Your task to perform on an android device: turn on notifications settings in the gmail app Image 0: 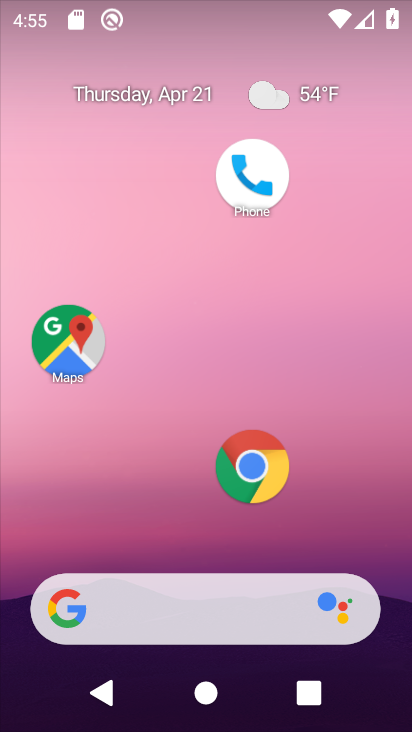
Step 0: drag from (188, 531) to (295, 32)
Your task to perform on an android device: turn on notifications settings in the gmail app Image 1: 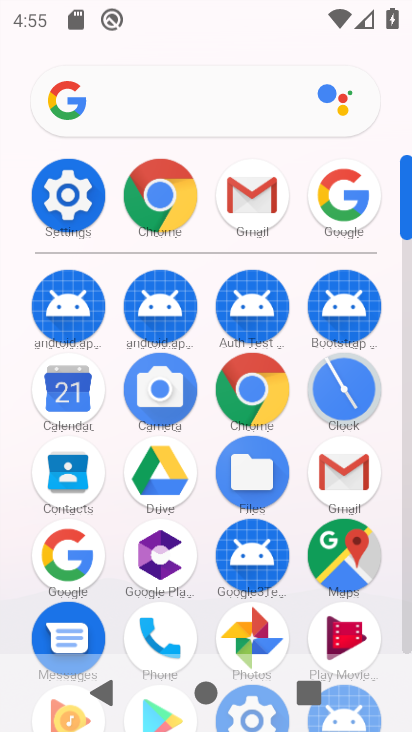
Step 1: click (269, 188)
Your task to perform on an android device: turn on notifications settings in the gmail app Image 2: 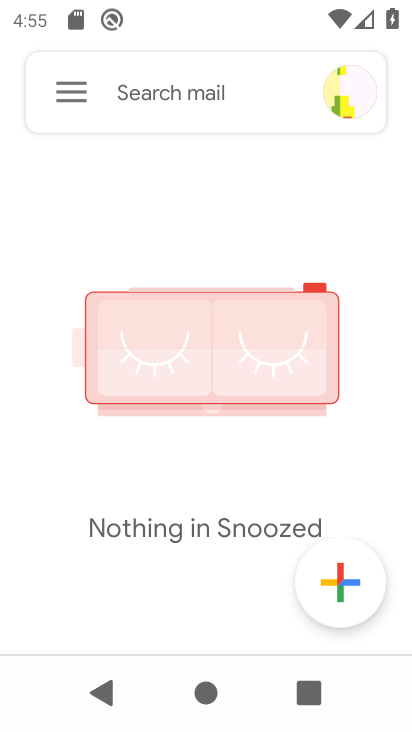
Step 2: click (66, 100)
Your task to perform on an android device: turn on notifications settings in the gmail app Image 3: 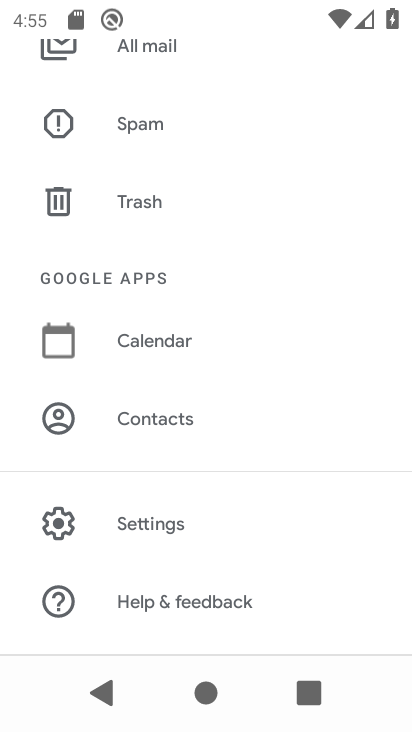
Step 3: click (181, 511)
Your task to perform on an android device: turn on notifications settings in the gmail app Image 4: 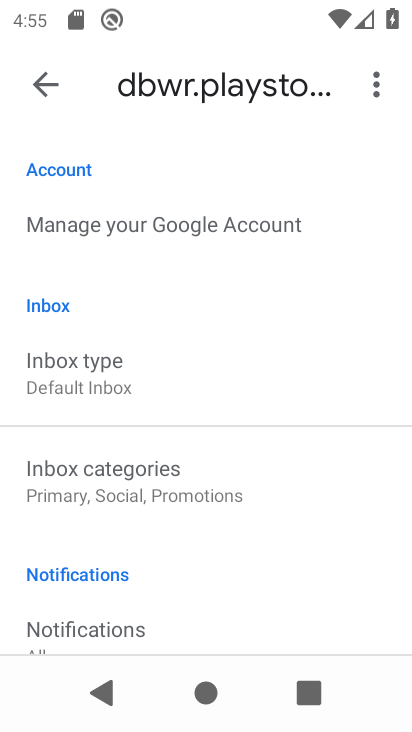
Step 4: drag from (203, 569) to (243, 103)
Your task to perform on an android device: turn on notifications settings in the gmail app Image 5: 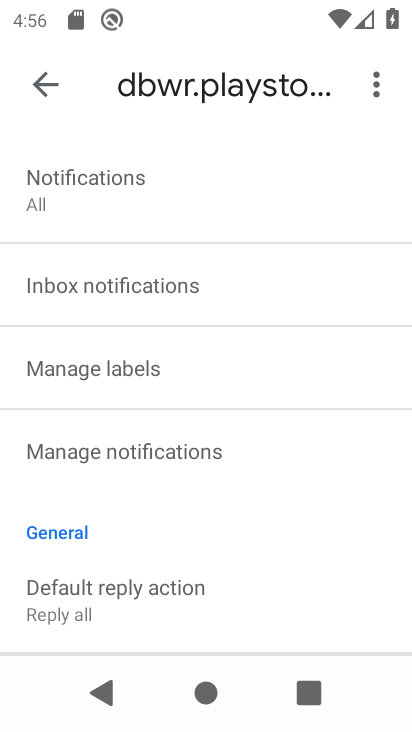
Step 5: click (119, 175)
Your task to perform on an android device: turn on notifications settings in the gmail app Image 6: 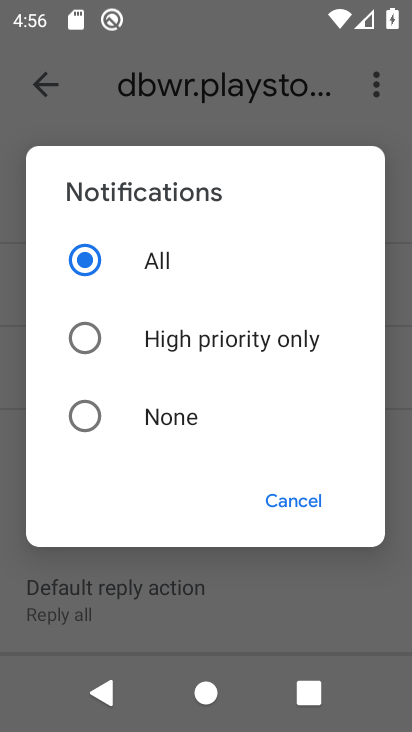
Step 6: task complete